Your task to perform on an android device: Open notification settings Image 0: 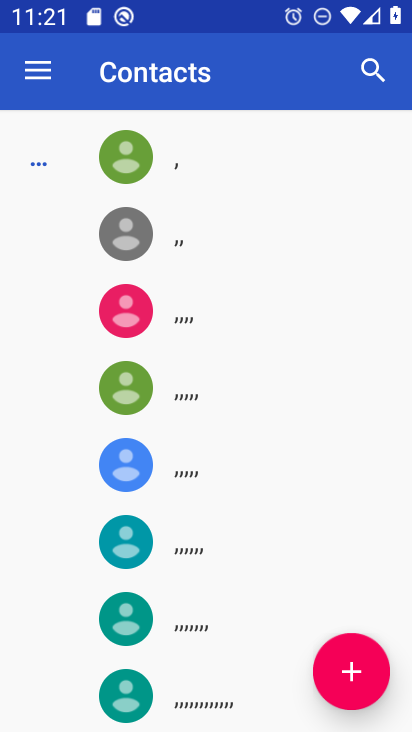
Step 0: press home button
Your task to perform on an android device: Open notification settings Image 1: 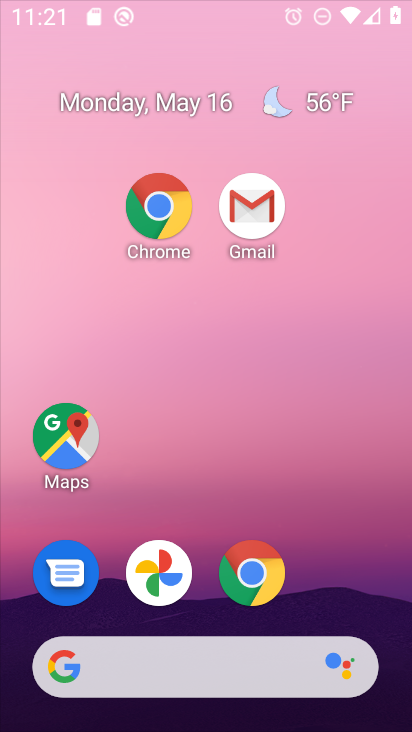
Step 1: press back button
Your task to perform on an android device: Open notification settings Image 2: 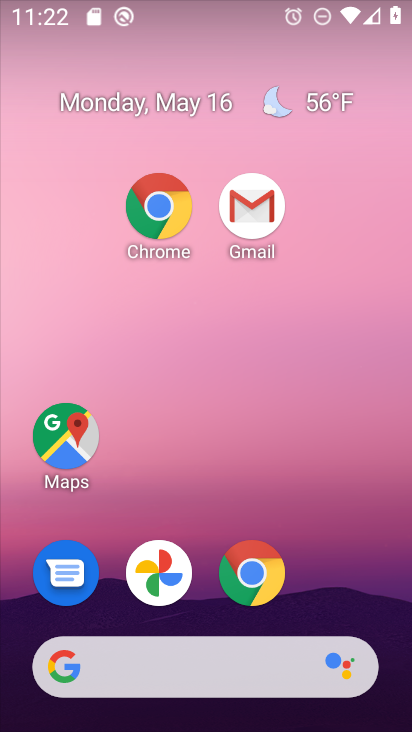
Step 2: drag from (338, 576) to (220, 179)
Your task to perform on an android device: Open notification settings Image 3: 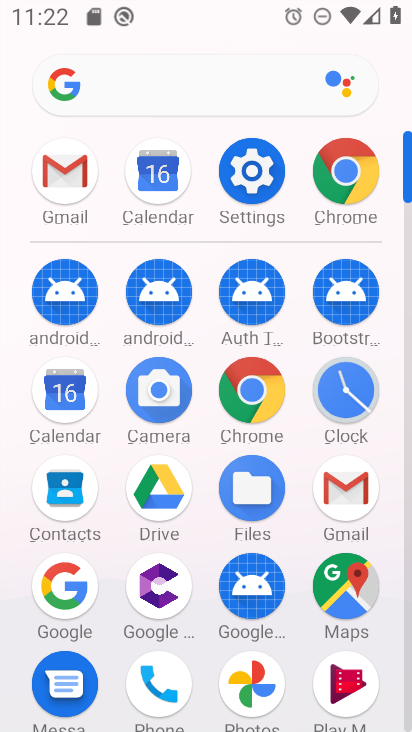
Step 3: click (248, 174)
Your task to perform on an android device: Open notification settings Image 4: 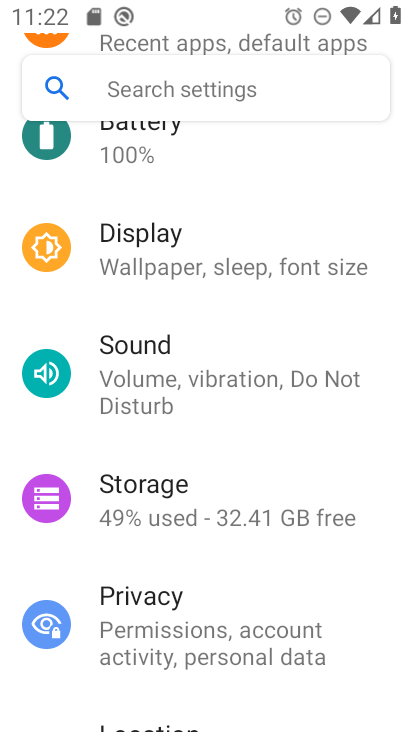
Step 4: drag from (191, 205) to (254, 547)
Your task to perform on an android device: Open notification settings Image 5: 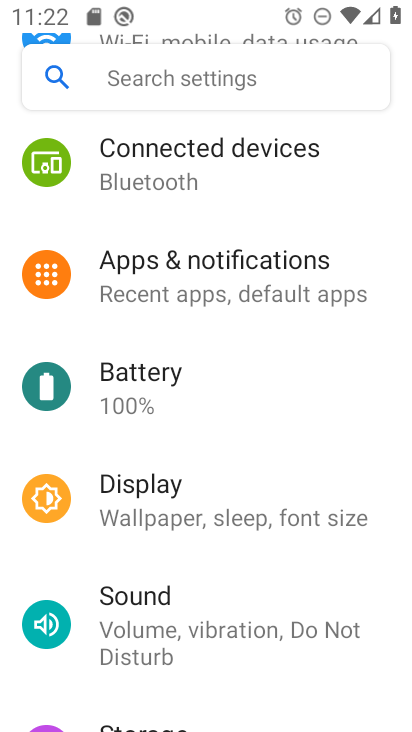
Step 5: click (234, 299)
Your task to perform on an android device: Open notification settings Image 6: 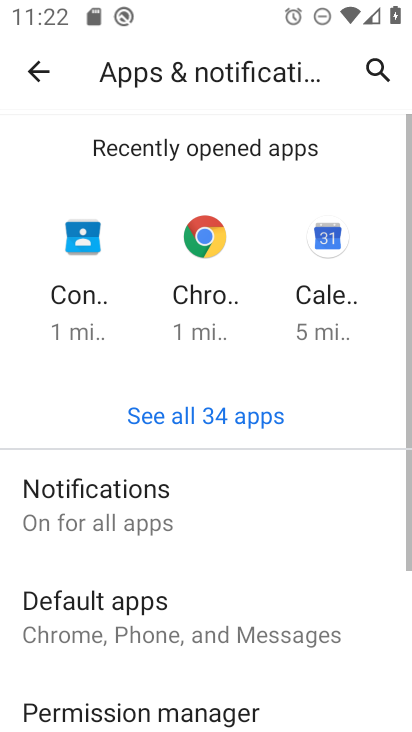
Step 6: click (127, 494)
Your task to perform on an android device: Open notification settings Image 7: 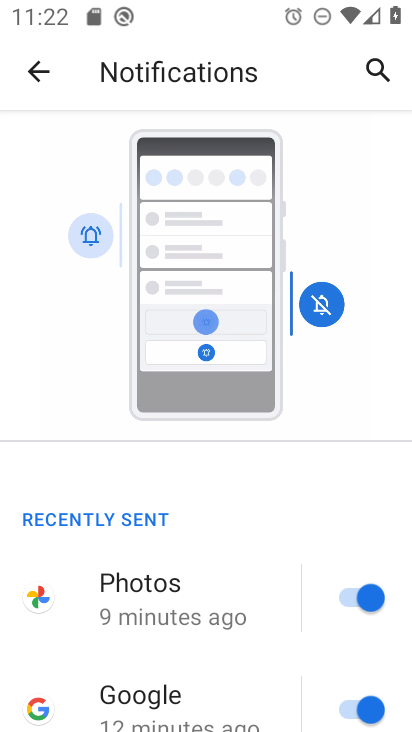
Step 7: task complete